Your task to perform on an android device: Open Yahoo.com Image 0: 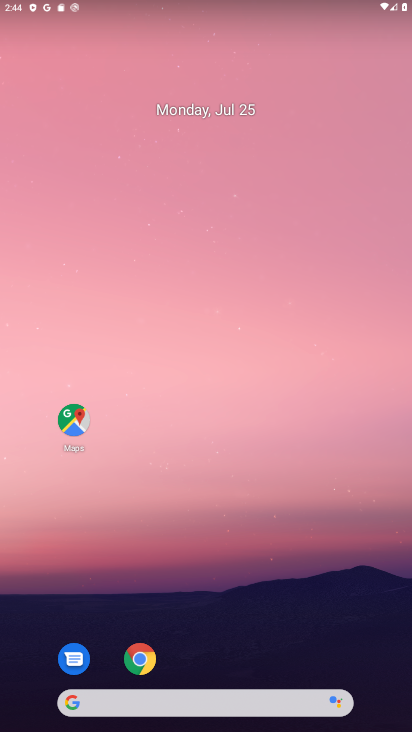
Step 0: drag from (219, 682) to (247, 69)
Your task to perform on an android device: Open Yahoo.com Image 1: 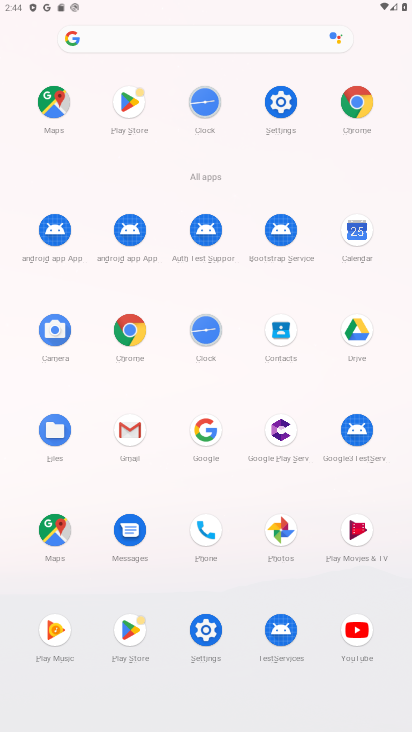
Step 1: click (195, 428)
Your task to perform on an android device: Open Yahoo.com Image 2: 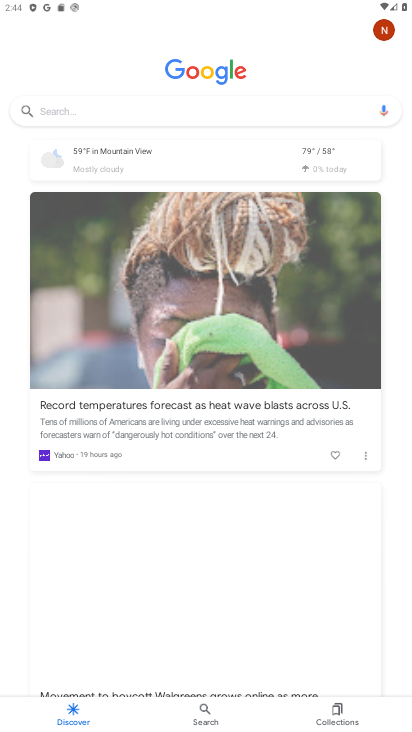
Step 2: type "Yahoo.com"
Your task to perform on an android device: Open Yahoo.com Image 3: 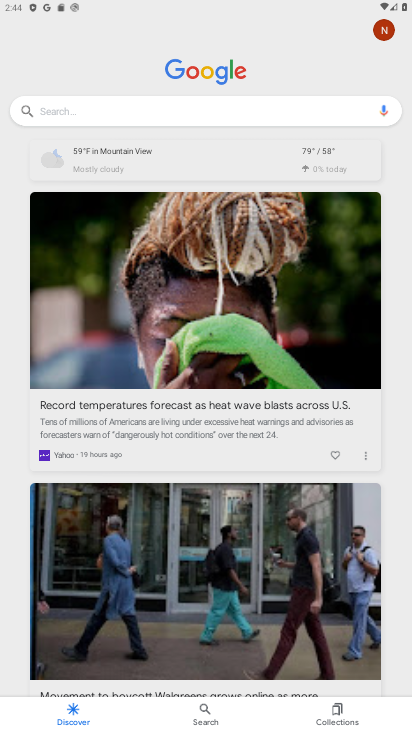
Step 3: type ""
Your task to perform on an android device: Open Yahoo.com Image 4: 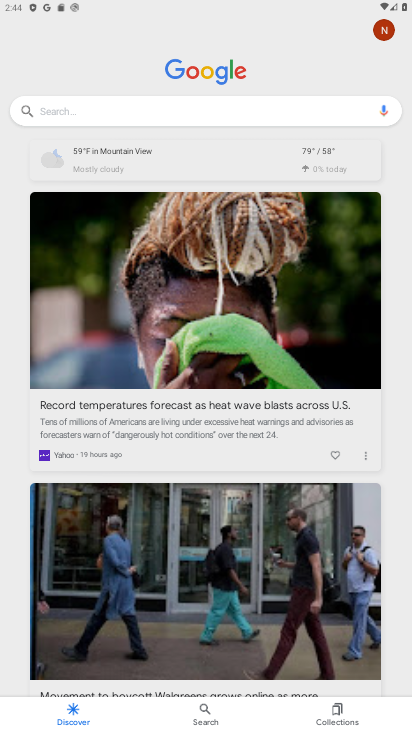
Step 4: click (189, 113)
Your task to perform on an android device: Open Yahoo.com Image 5: 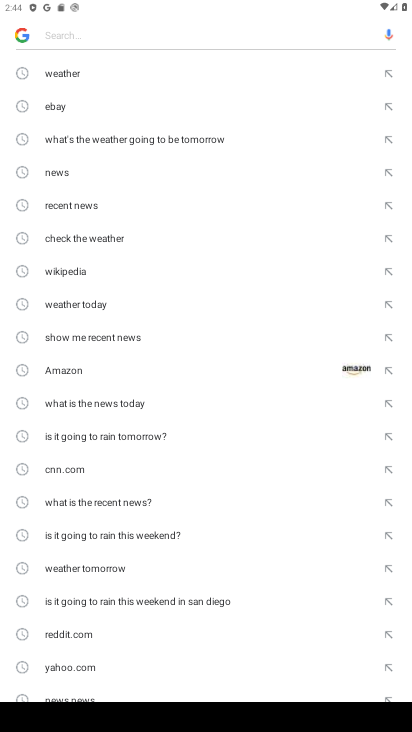
Step 5: type "Yahoo.com"
Your task to perform on an android device: Open Yahoo.com Image 6: 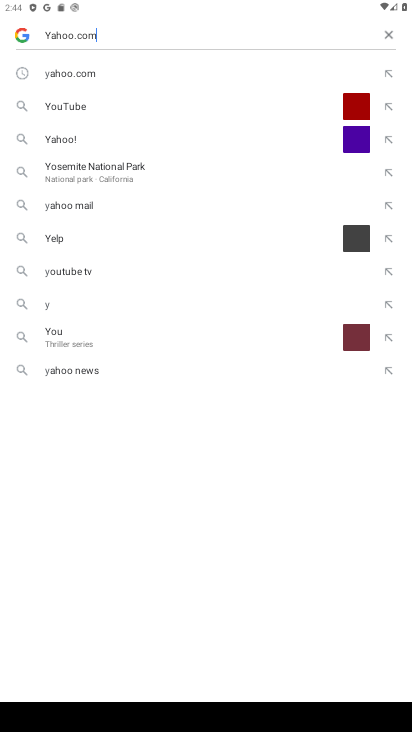
Step 6: type ""
Your task to perform on an android device: Open Yahoo.com Image 7: 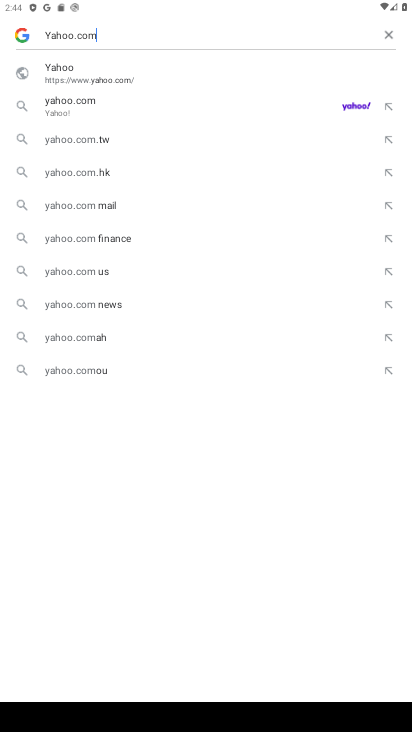
Step 7: click (80, 62)
Your task to perform on an android device: Open Yahoo.com Image 8: 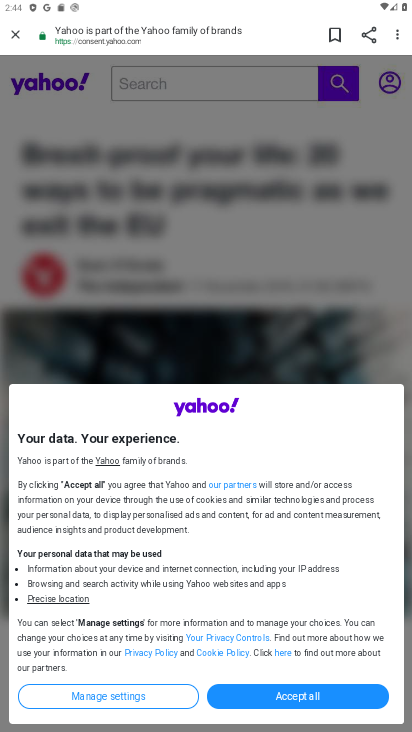
Step 8: click (314, 690)
Your task to perform on an android device: Open Yahoo.com Image 9: 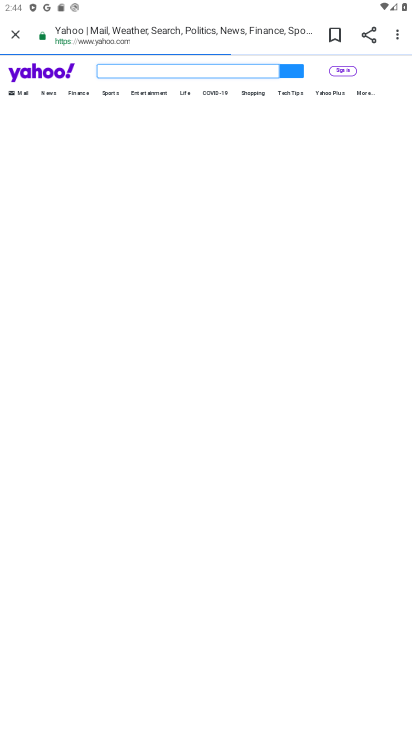
Step 9: task complete